Your task to perform on an android device: remove spam from my inbox in the gmail app Image 0: 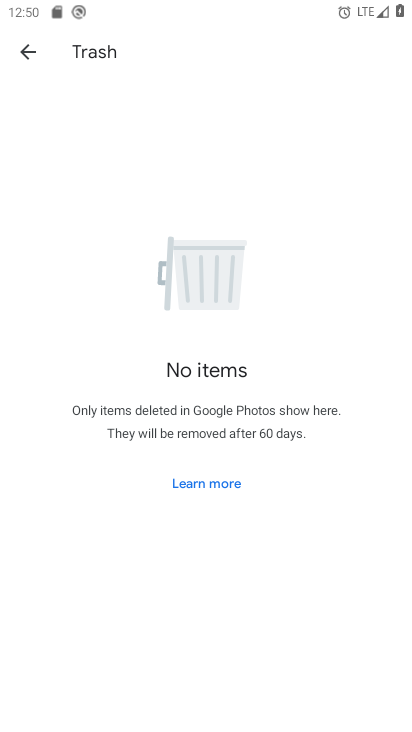
Step 0: press home button
Your task to perform on an android device: remove spam from my inbox in the gmail app Image 1: 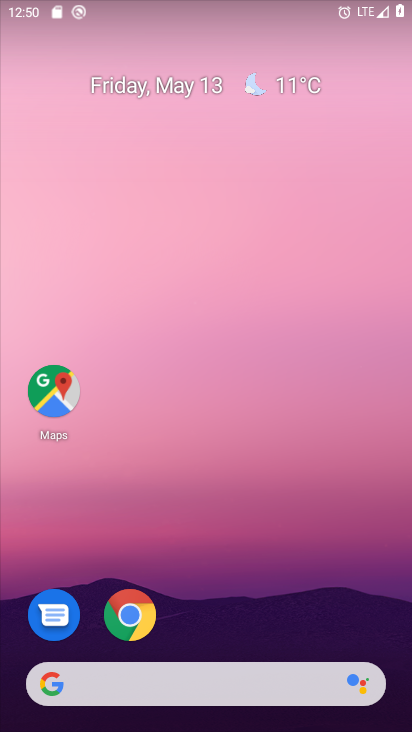
Step 1: drag from (250, 542) to (194, 67)
Your task to perform on an android device: remove spam from my inbox in the gmail app Image 2: 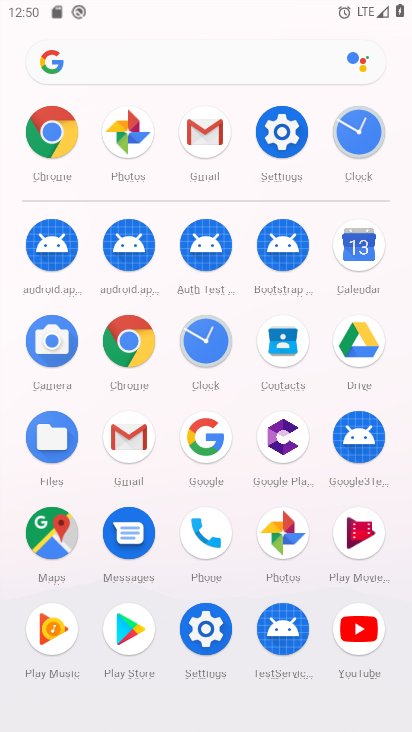
Step 2: click (204, 136)
Your task to perform on an android device: remove spam from my inbox in the gmail app Image 3: 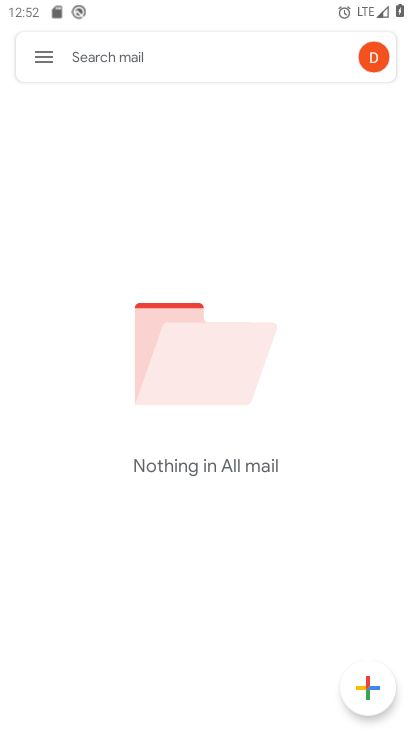
Step 3: click (39, 51)
Your task to perform on an android device: remove spam from my inbox in the gmail app Image 4: 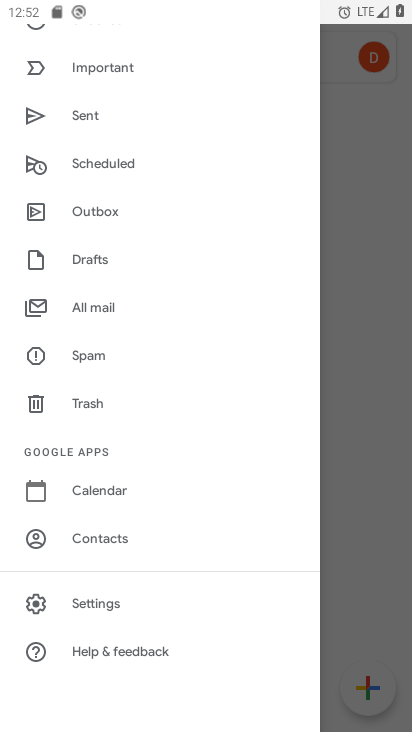
Step 4: drag from (145, 222) to (119, 589)
Your task to perform on an android device: remove spam from my inbox in the gmail app Image 5: 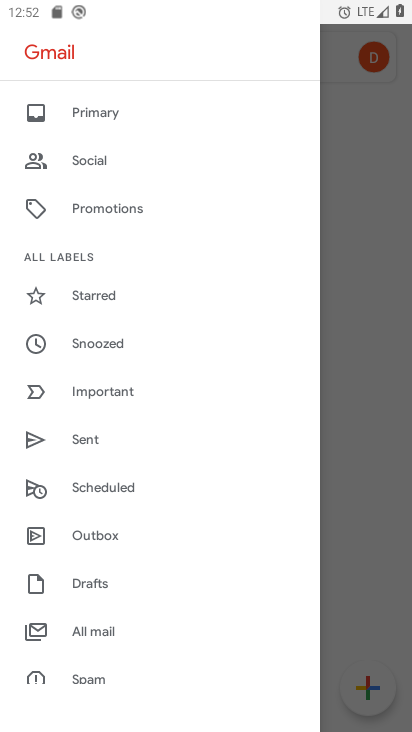
Step 5: drag from (183, 217) to (148, 547)
Your task to perform on an android device: remove spam from my inbox in the gmail app Image 6: 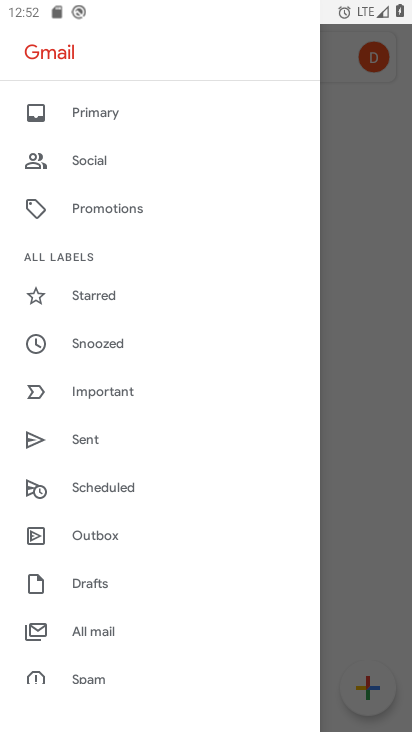
Step 6: click (340, 271)
Your task to perform on an android device: remove spam from my inbox in the gmail app Image 7: 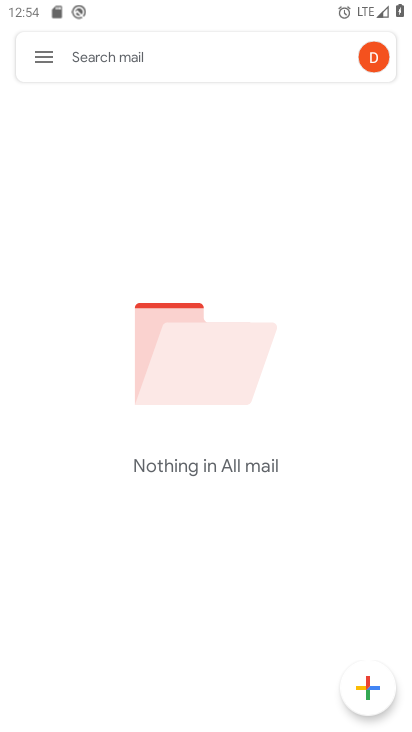
Step 7: task complete